Your task to perform on an android device: Go to notification settings Image 0: 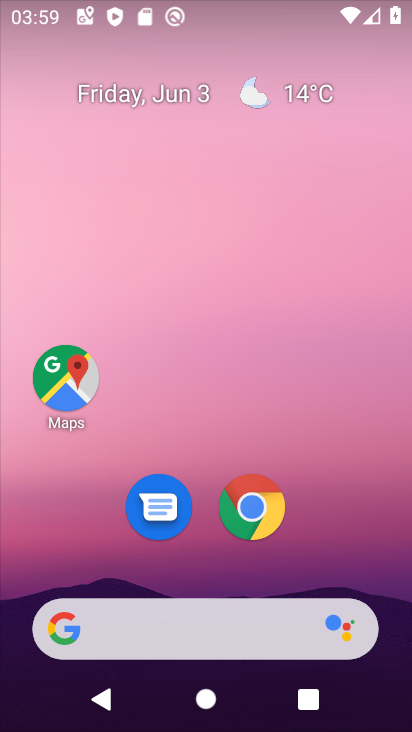
Step 0: press home button
Your task to perform on an android device: Go to notification settings Image 1: 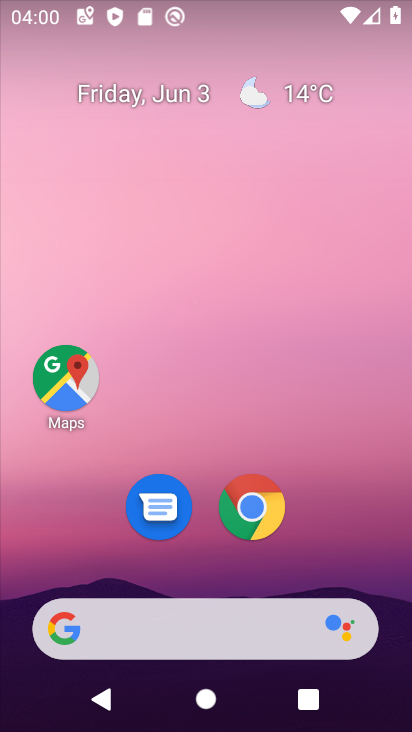
Step 1: drag from (310, 546) to (245, 51)
Your task to perform on an android device: Go to notification settings Image 2: 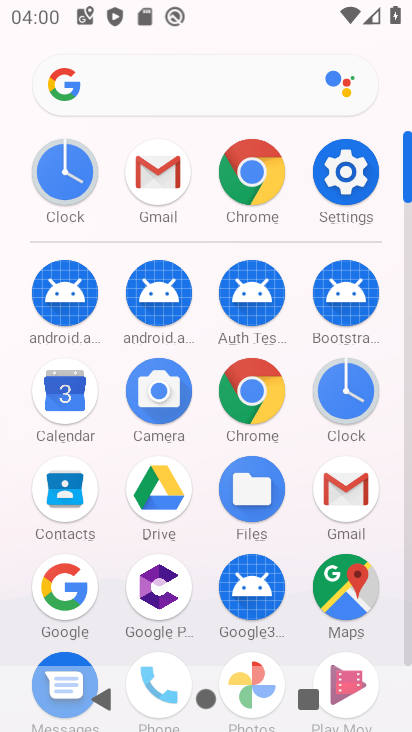
Step 2: click (339, 174)
Your task to perform on an android device: Go to notification settings Image 3: 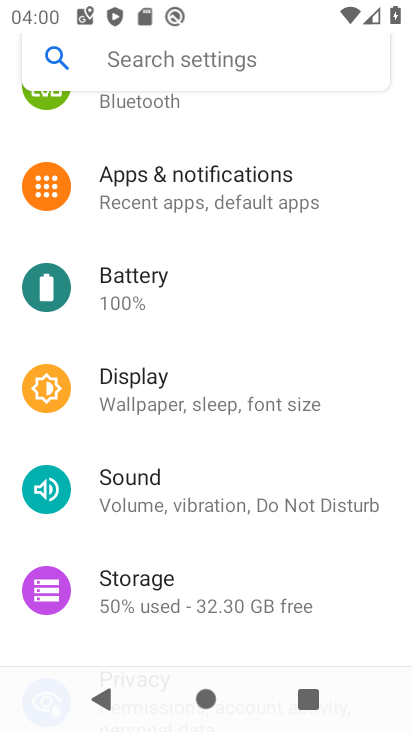
Step 3: click (189, 197)
Your task to perform on an android device: Go to notification settings Image 4: 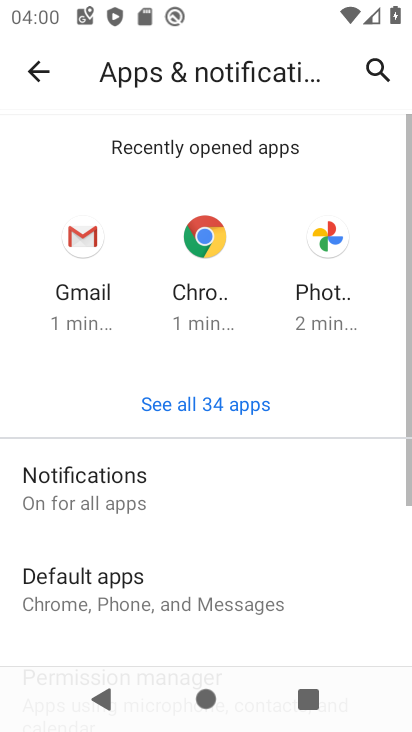
Step 4: click (68, 478)
Your task to perform on an android device: Go to notification settings Image 5: 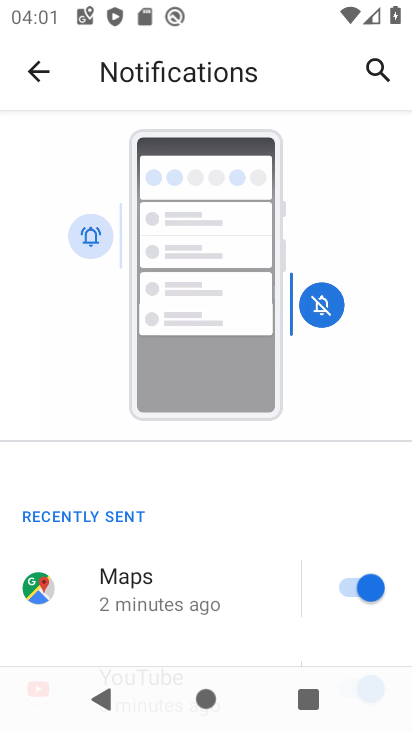
Step 5: task complete